Your task to perform on an android device: Go to battery settings Image 0: 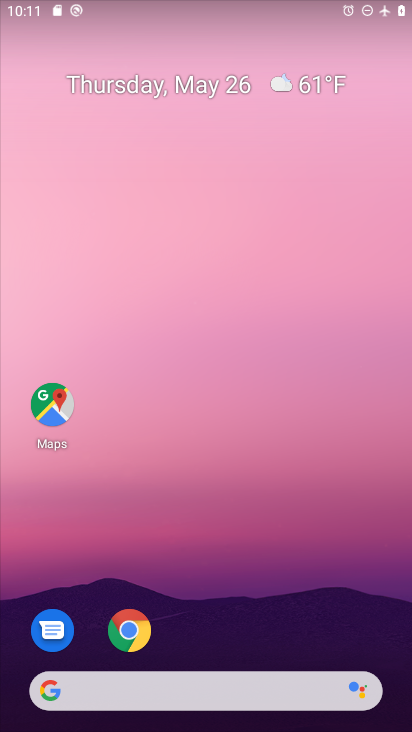
Step 0: drag from (210, 643) to (105, 80)
Your task to perform on an android device: Go to battery settings Image 1: 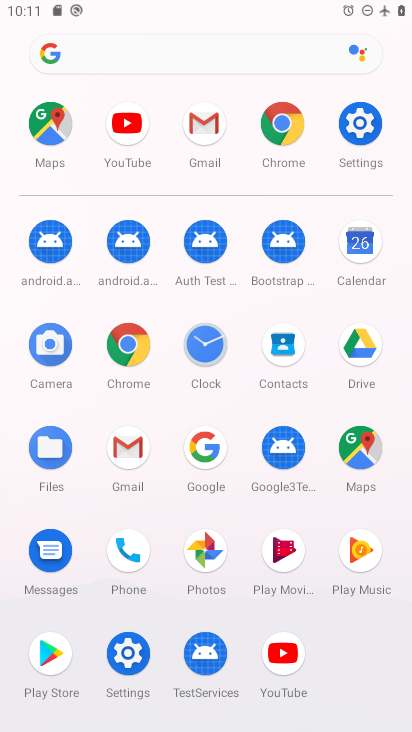
Step 1: click (348, 119)
Your task to perform on an android device: Go to battery settings Image 2: 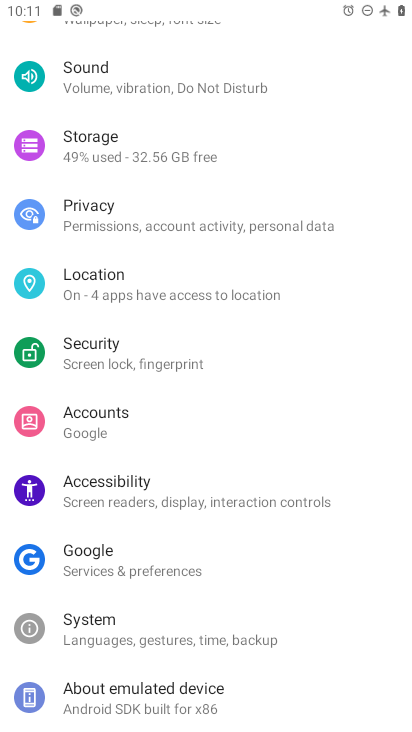
Step 2: drag from (348, 119) to (212, 566)
Your task to perform on an android device: Go to battery settings Image 3: 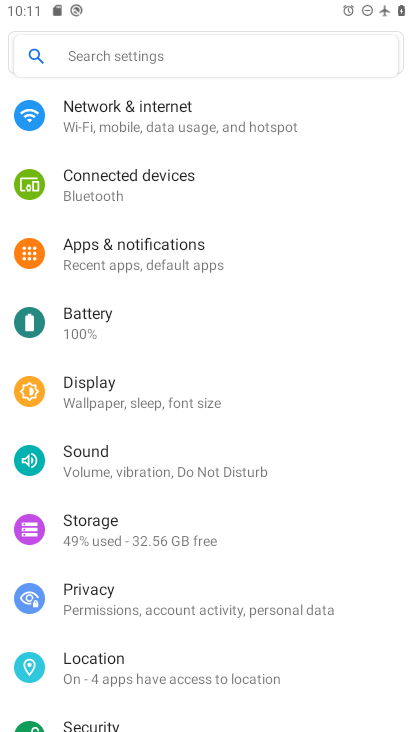
Step 3: click (81, 299)
Your task to perform on an android device: Go to battery settings Image 4: 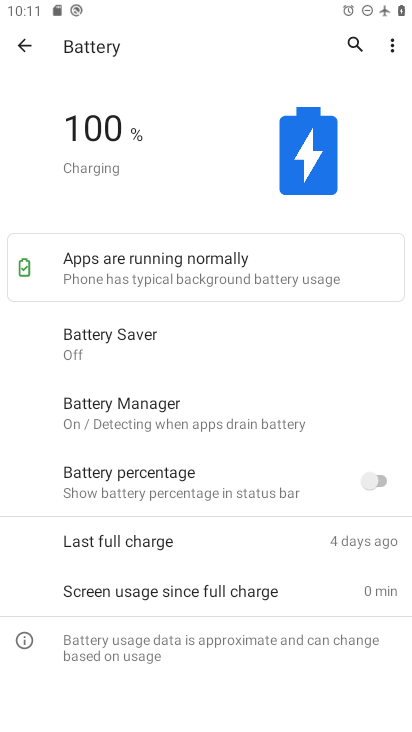
Step 4: task complete